Your task to perform on an android device: Open wifi settings Image 0: 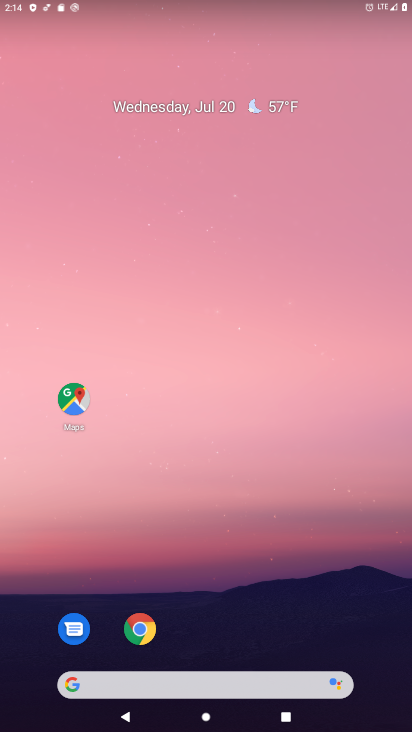
Step 0: drag from (384, 660) to (353, 103)
Your task to perform on an android device: Open wifi settings Image 1: 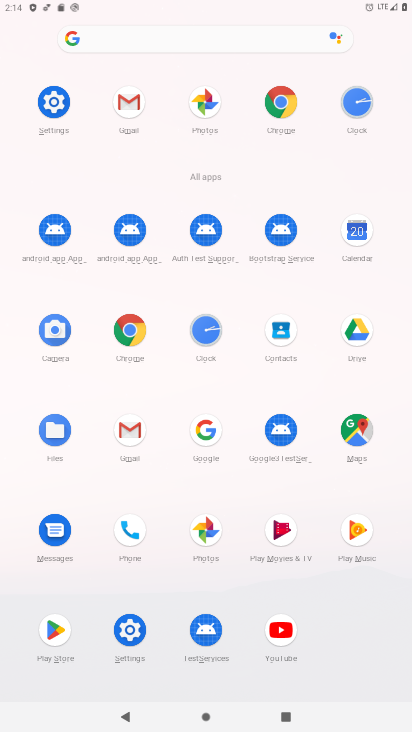
Step 1: click (130, 631)
Your task to perform on an android device: Open wifi settings Image 2: 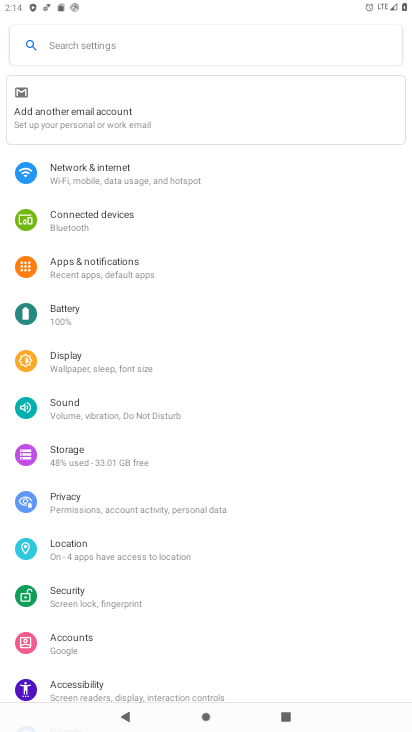
Step 2: click (78, 166)
Your task to perform on an android device: Open wifi settings Image 3: 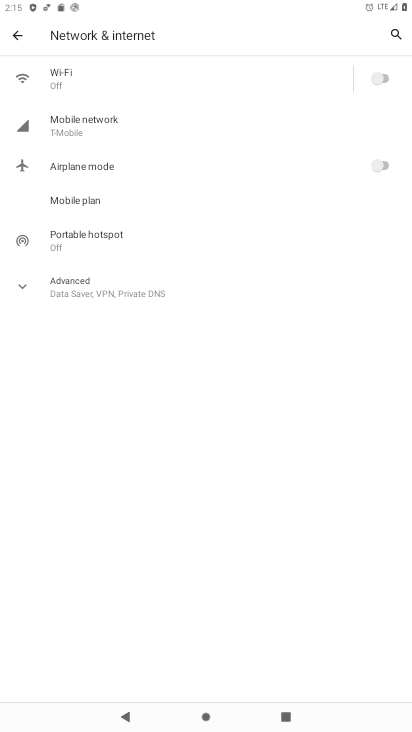
Step 3: click (50, 71)
Your task to perform on an android device: Open wifi settings Image 4: 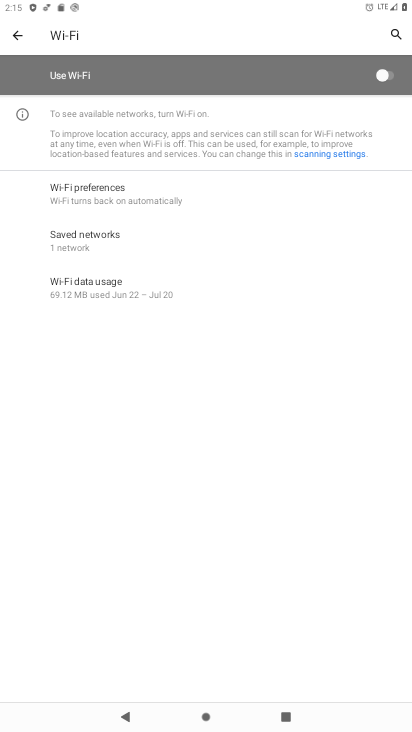
Step 4: task complete